Your task to perform on an android device: Search for sushi restaurants on Maps Image 0: 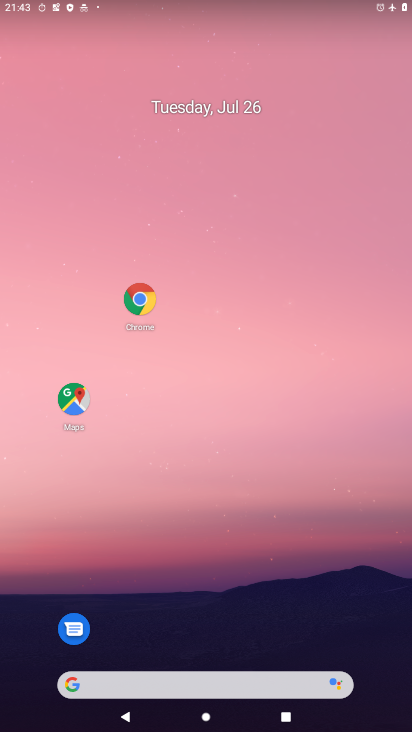
Step 0: drag from (201, 646) to (93, 173)
Your task to perform on an android device: Search for sushi restaurants on Maps Image 1: 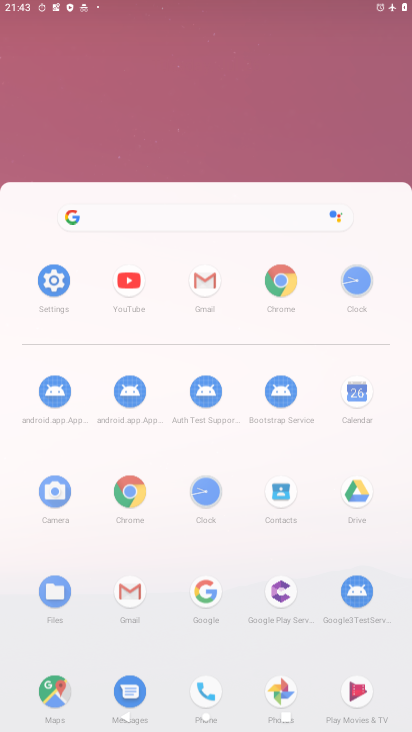
Step 1: drag from (219, 202) to (219, 132)
Your task to perform on an android device: Search for sushi restaurants on Maps Image 2: 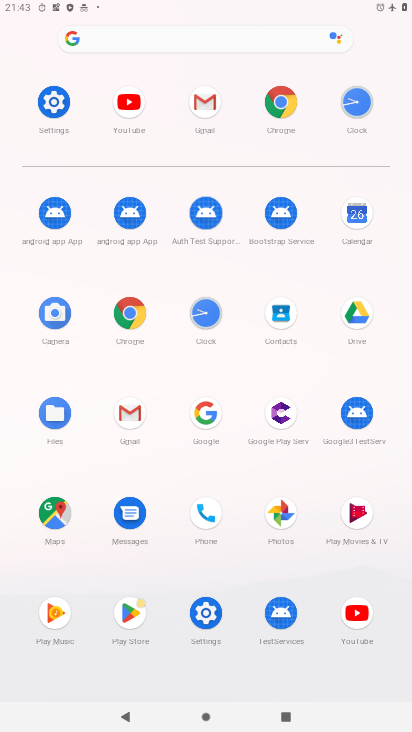
Step 2: drag from (274, 490) to (211, 65)
Your task to perform on an android device: Search for sushi restaurants on Maps Image 3: 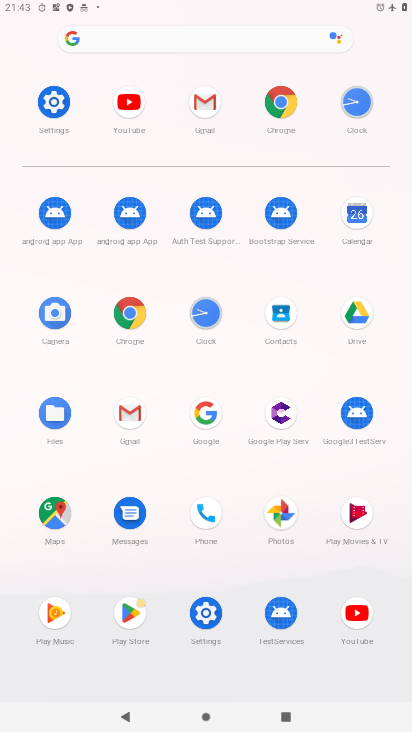
Step 3: drag from (188, 529) to (124, 203)
Your task to perform on an android device: Search for sushi restaurants on Maps Image 4: 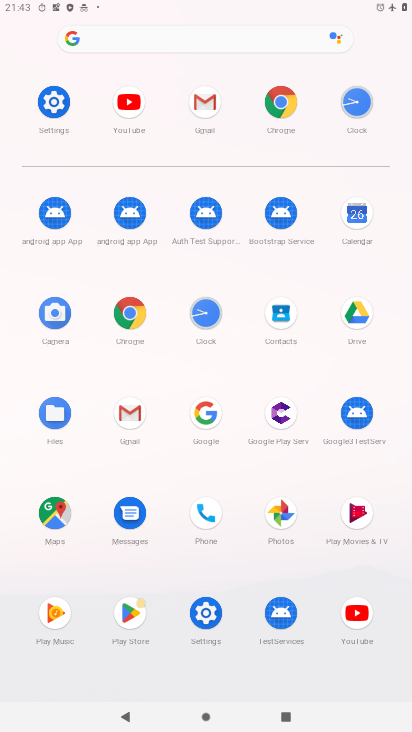
Step 4: click (48, 499)
Your task to perform on an android device: Search for sushi restaurants on Maps Image 5: 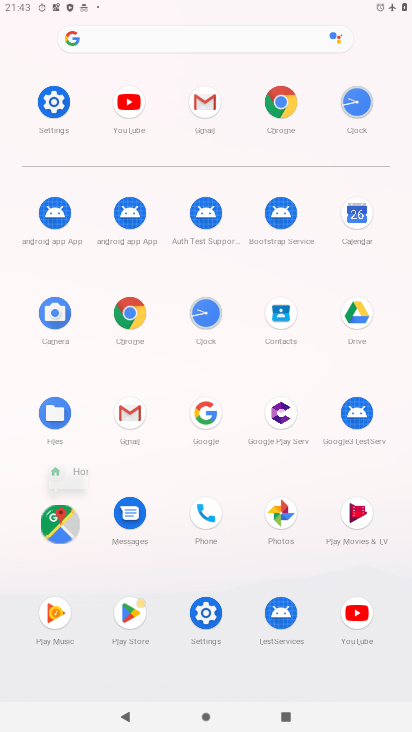
Step 5: click (54, 515)
Your task to perform on an android device: Search for sushi restaurants on Maps Image 6: 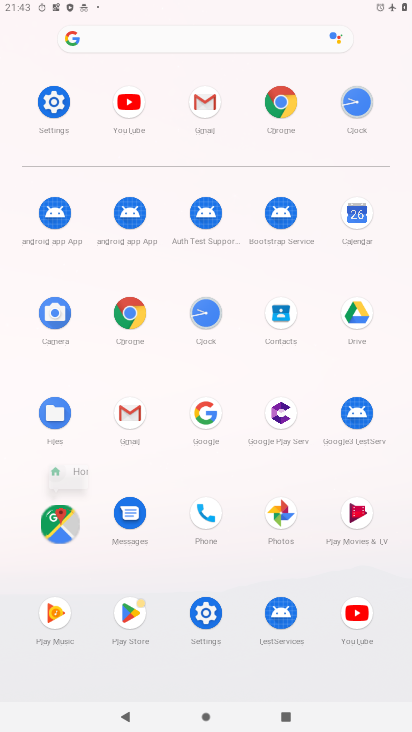
Step 6: click (55, 513)
Your task to perform on an android device: Search for sushi restaurants on Maps Image 7: 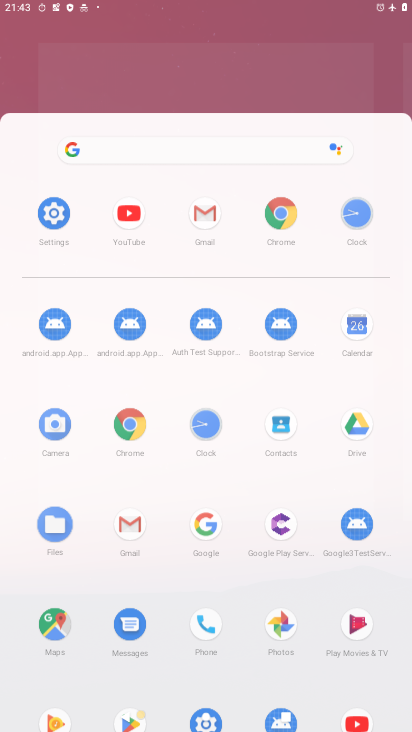
Step 7: click (59, 511)
Your task to perform on an android device: Search for sushi restaurants on Maps Image 8: 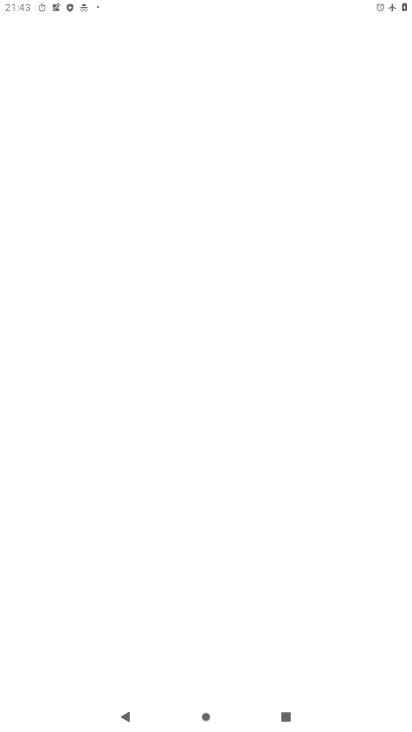
Step 8: drag from (244, 654) to (147, 29)
Your task to perform on an android device: Search for sushi restaurants on Maps Image 9: 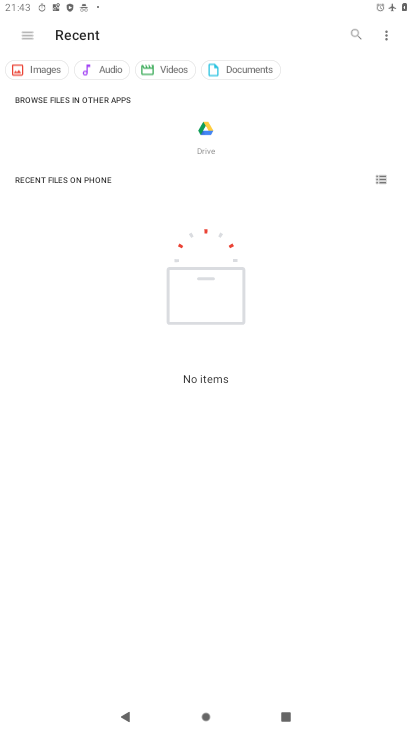
Step 9: click (31, 28)
Your task to perform on an android device: Search for sushi restaurants on Maps Image 10: 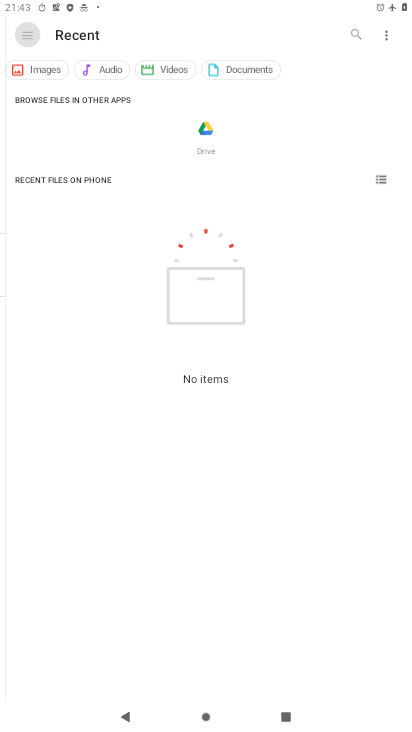
Step 10: click (33, 33)
Your task to perform on an android device: Search for sushi restaurants on Maps Image 11: 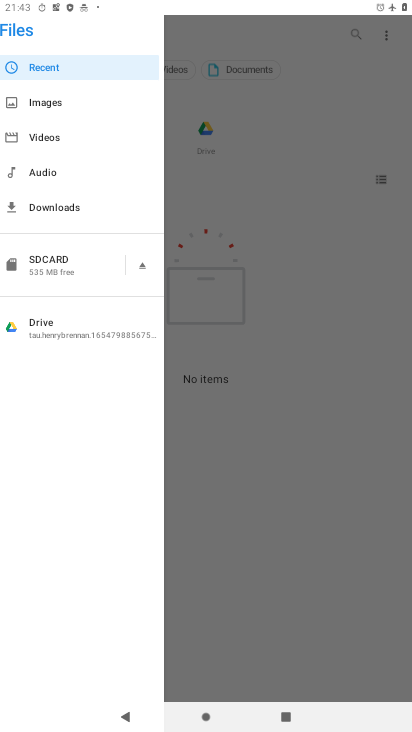
Step 11: click (33, 33)
Your task to perform on an android device: Search for sushi restaurants on Maps Image 12: 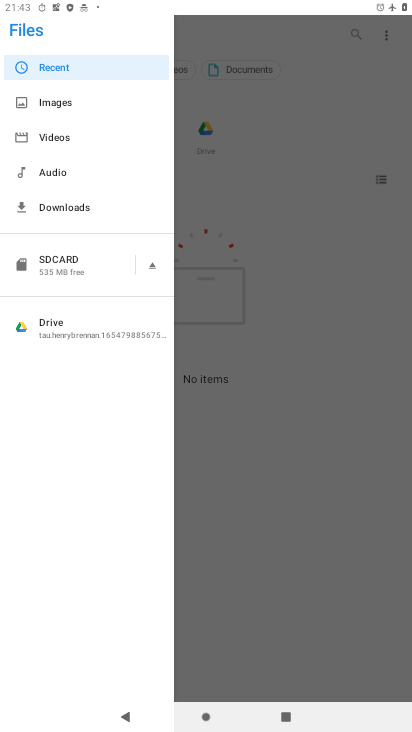
Step 12: click (33, 33)
Your task to perform on an android device: Search for sushi restaurants on Maps Image 13: 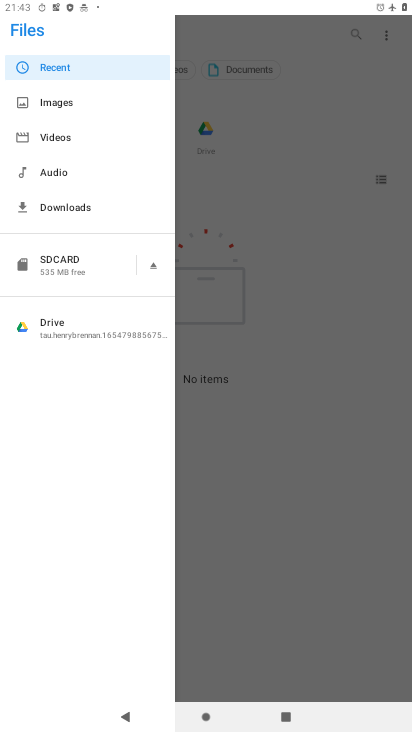
Step 13: click (316, 325)
Your task to perform on an android device: Search for sushi restaurants on Maps Image 14: 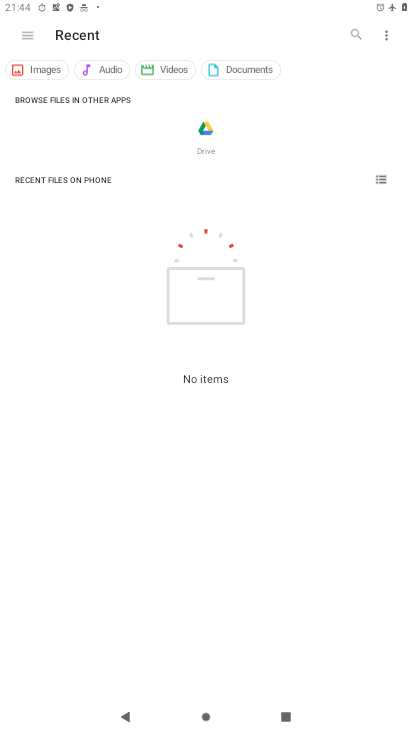
Step 14: click (21, 43)
Your task to perform on an android device: Search for sushi restaurants on Maps Image 15: 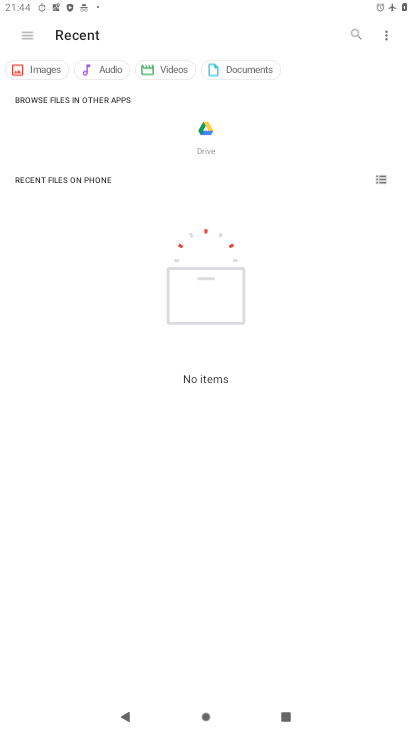
Step 15: click (21, 43)
Your task to perform on an android device: Search for sushi restaurants on Maps Image 16: 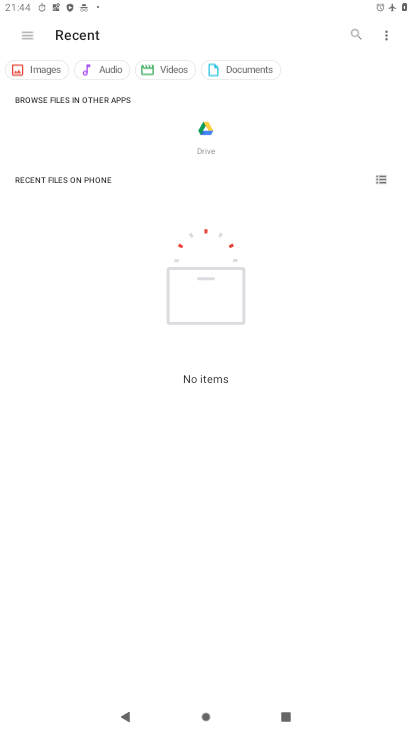
Step 16: press back button
Your task to perform on an android device: Search for sushi restaurants on Maps Image 17: 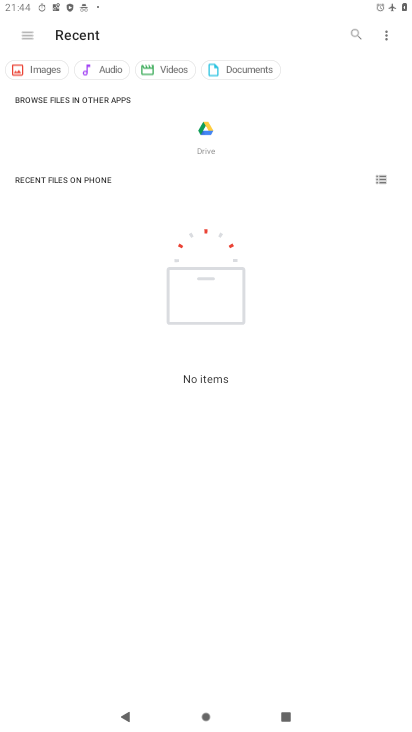
Step 17: press back button
Your task to perform on an android device: Search for sushi restaurants on Maps Image 18: 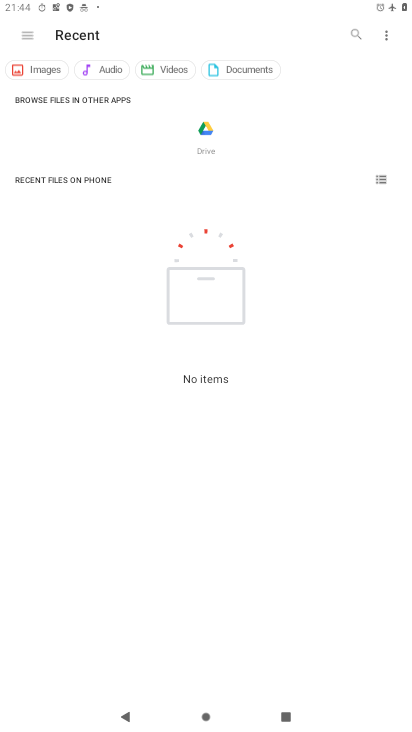
Step 18: press back button
Your task to perform on an android device: Search for sushi restaurants on Maps Image 19: 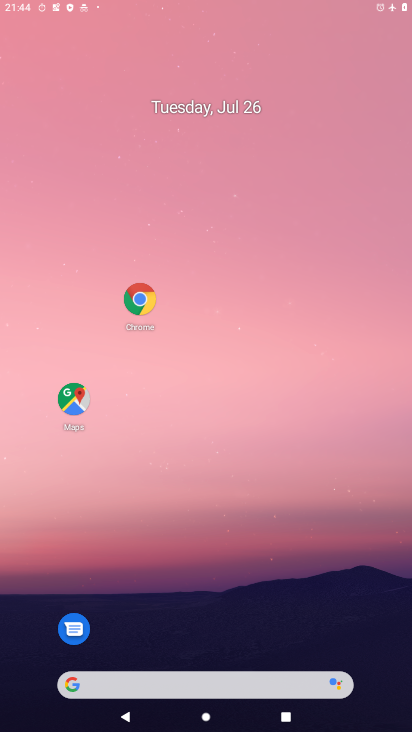
Step 19: click (37, 44)
Your task to perform on an android device: Search for sushi restaurants on Maps Image 20: 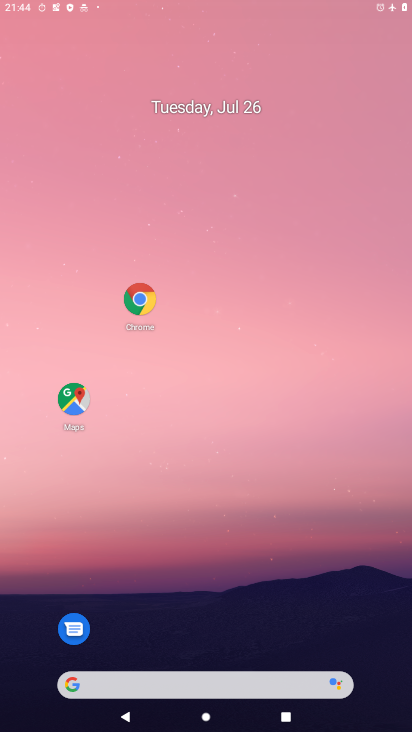
Step 20: click (25, 34)
Your task to perform on an android device: Search for sushi restaurants on Maps Image 21: 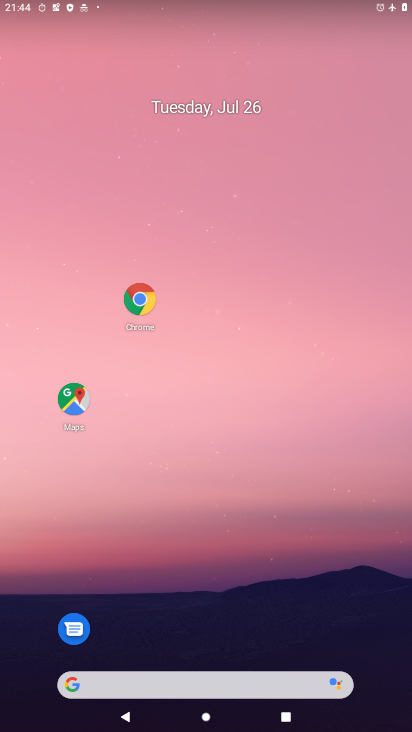
Step 21: click (25, 36)
Your task to perform on an android device: Search for sushi restaurants on Maps Image 22: 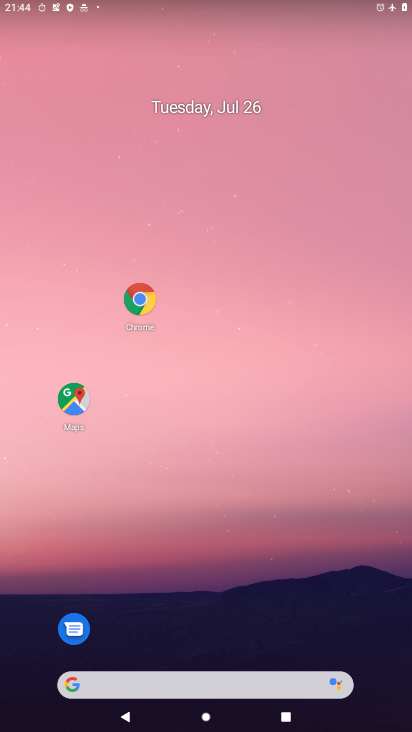
Step 22: drag from (185, 379) to (185, 186)
Your task to perform on an android device: Search for sushi restaurants on Maps Image 23: 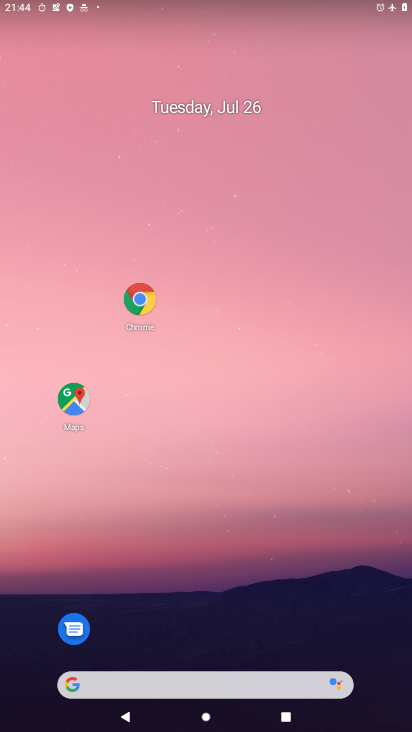
Step 23: drag from (190, 614) to (190, 161)
Your task to perform on an android device: Search for sushi restaurants on Maps Image 24: 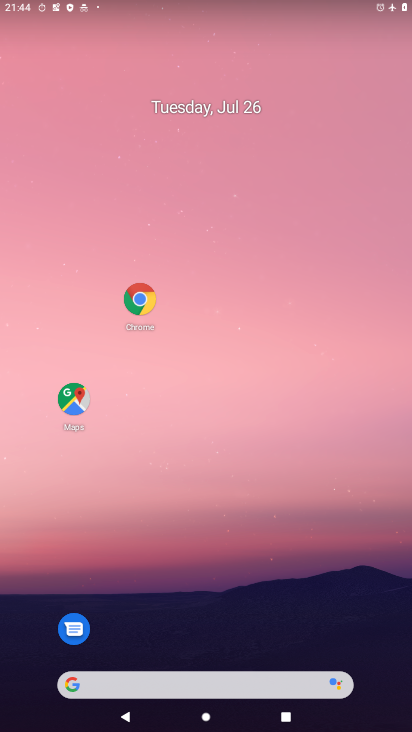
Step 24: drag from (194, 604) to (139, 0)
Your task to perform on an android device: Search for sushi restaurants on Maps Image 25: 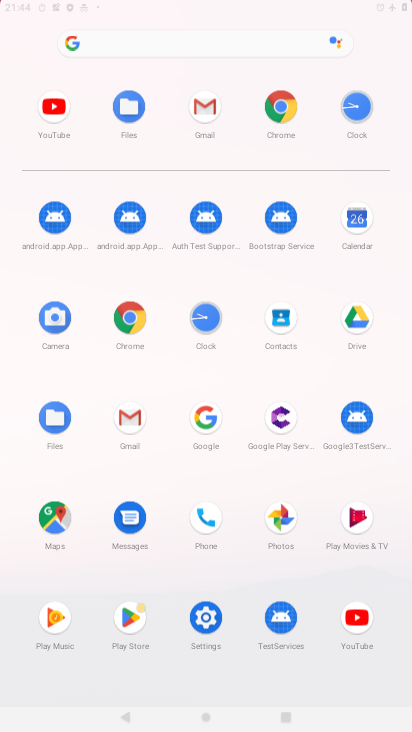
Step 25: drag from (154, 189) to (146, 123)
Your task to perform on an android device: Search for sushi restaurants on Maps Image 26: 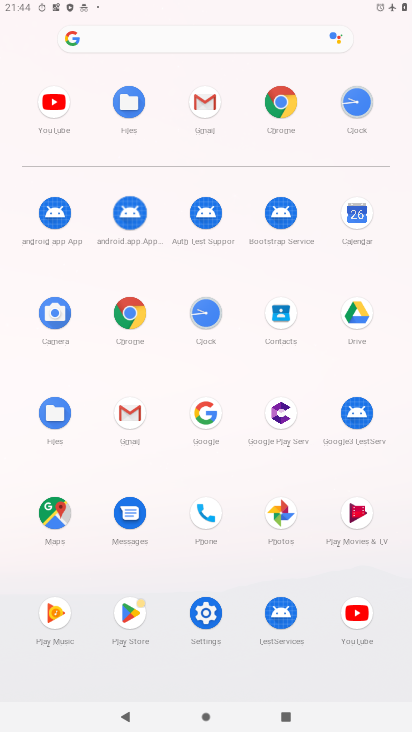
Step 26: drag from (197, 364) to (169, 21)
Your task to perform on an android device: Search for sushi restaurants on Maps Image 27: 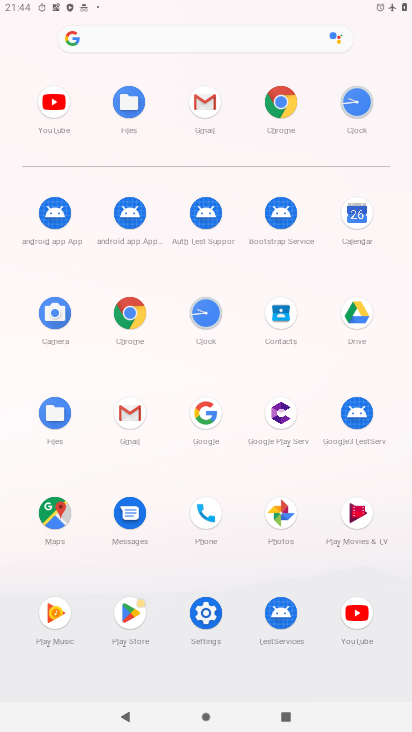
Step 27: click (56, 523)
Your task to perform on an android device: Search for sushi restaurants on Maps Image 28: 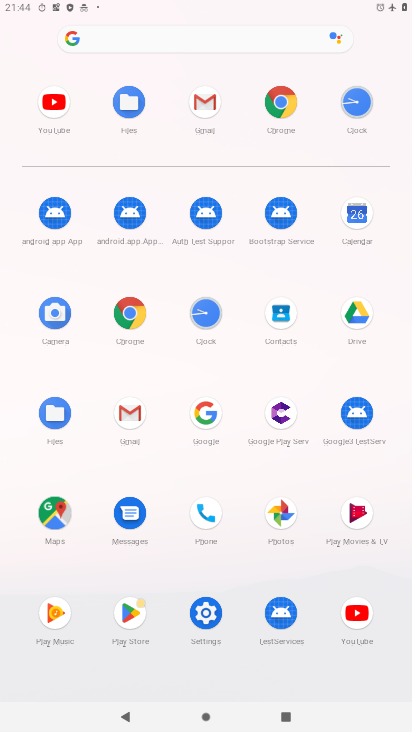
Step 28: click (56, 522)
Your task to perform on an android device: Search for sushi restaurants on Maps Image 29: 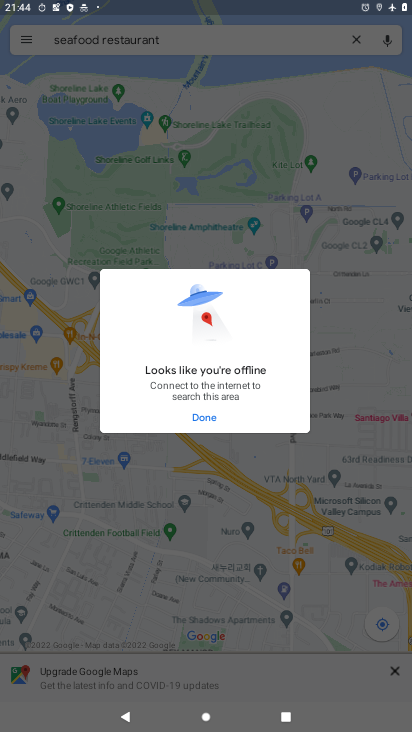
Step 29: task complete